Your task to perform on an android device: read, delete, or share a saved page in the chrome app Image 0: 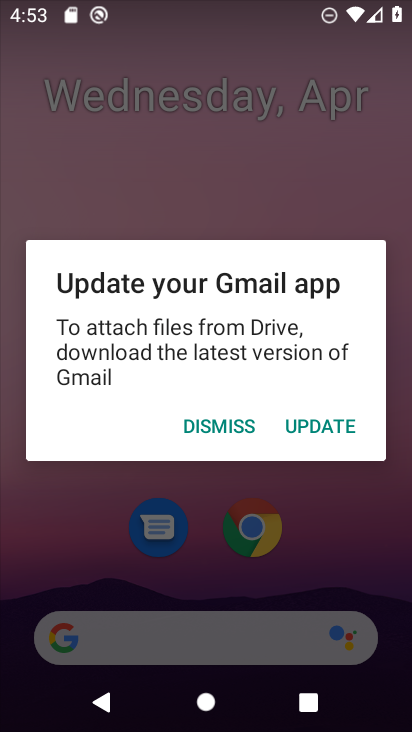
Step 0: press home button
Your task to perform on an android device: read, delete, or share a saved page in the chrome app Image 1: 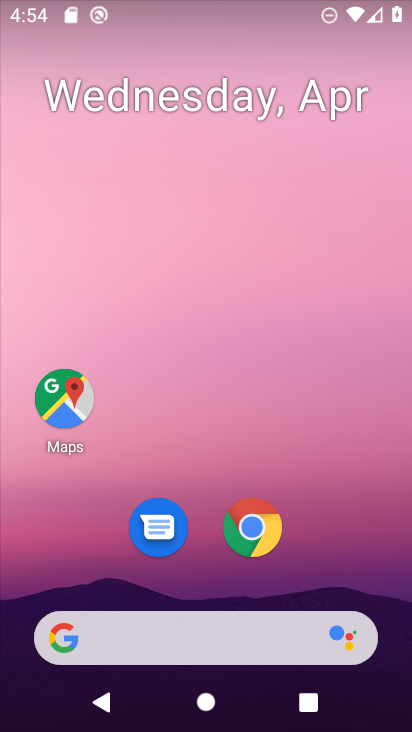
Step 1: click (252, 532)
Your task to perform on an android device: read, delete, or share a saved page in the chrome app Image 2: 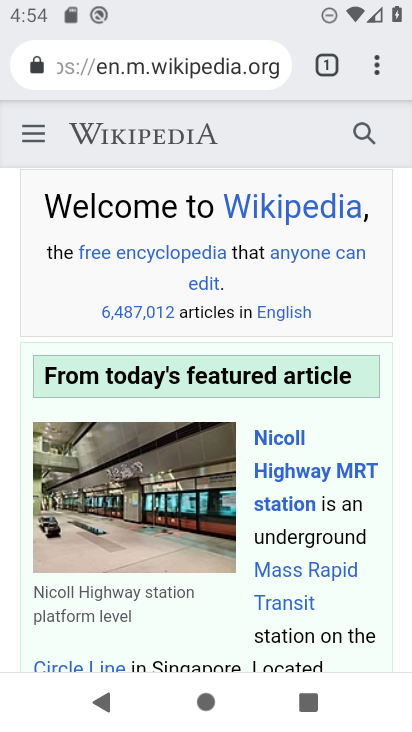
Step 2: click (374, 67)
Your task to perform on an android device: read, delete, or share a saved page in the chrome app Image 3: 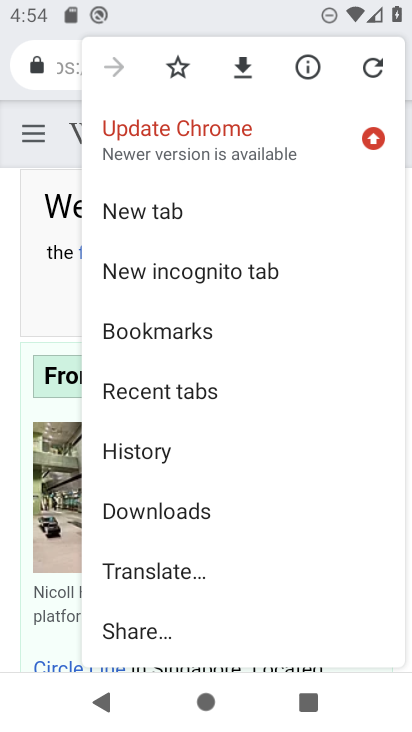
Step 3: click (146, 509)
Your task to perform on an android device: read, delete, or share a saved page in the chrome app Image 4: 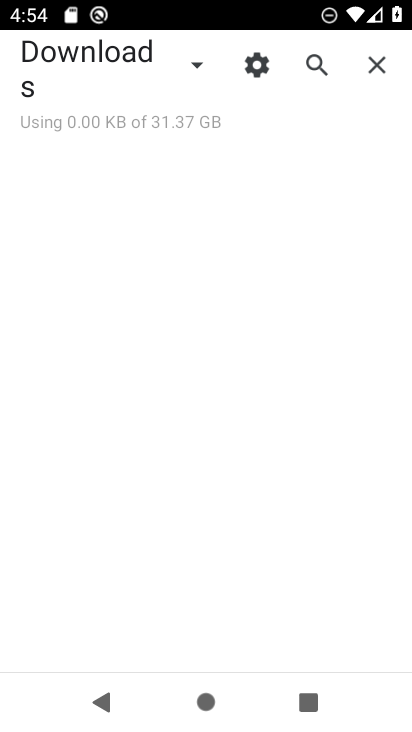
Step 4: click (195, 64)
Your task to perform on an android device: read, delete, or share a saved page in the chrome app Image 5: 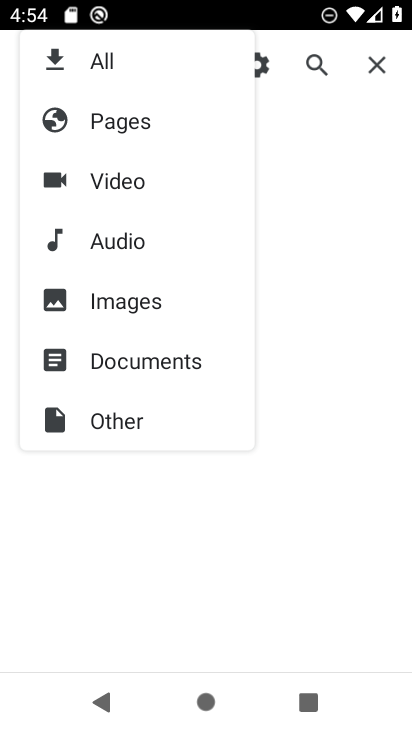
Step 5: click (108, 127)
Your task to perform on an android device: read, delete, or share a saved page in the chrome app Image 6: 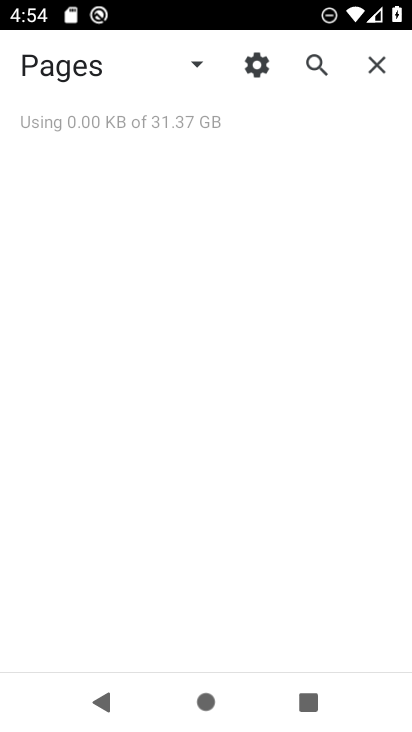
Step 6: task complete